Your task to perform on an android device: Find coffee shops on Maps Image 0: 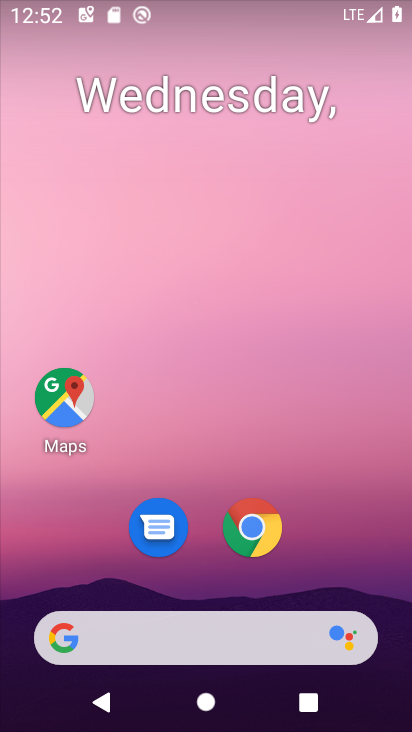
Step 0: drag from (302, 614) to (345, 0)
Your task to perform on an android device: Find coffee shops on Maps Image 1: 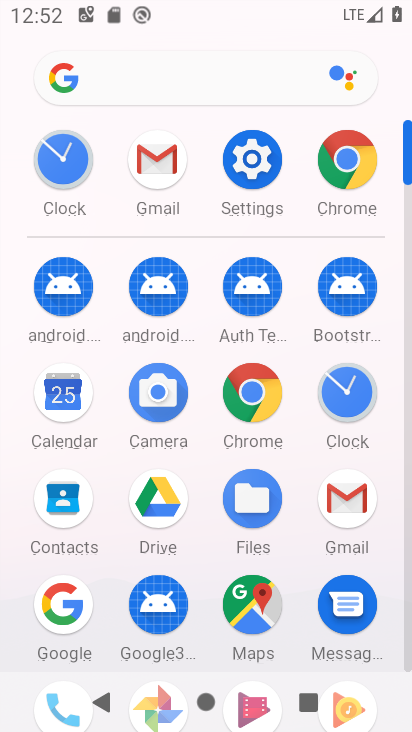
Step 1: click (250, 598)
Your task to perform on an android device: Find coffee shops on Maps Image 2: 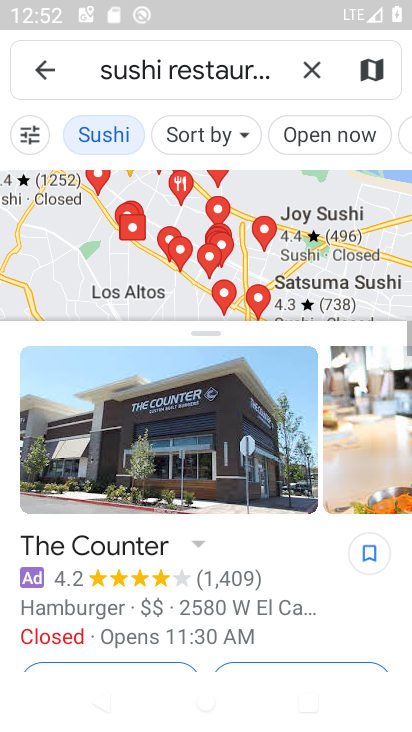
Step 2: click (313, 61)
Your task to perform on an android device: Find coffee shops on Maps Image 3: 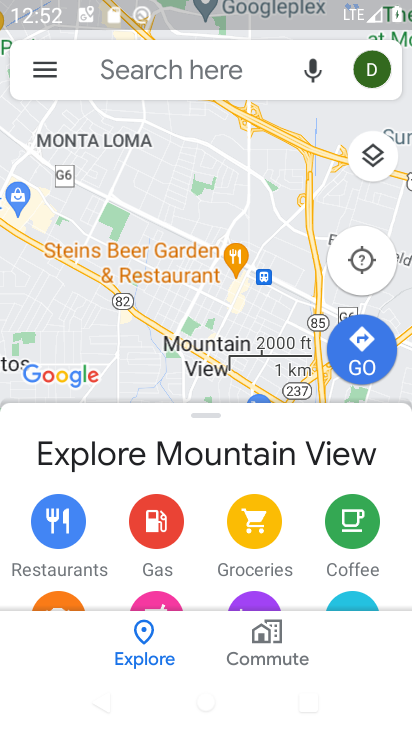
Step 3: click (186, 75)
Your task to perform on an android device: Find coffee shops on Maps Image 4: 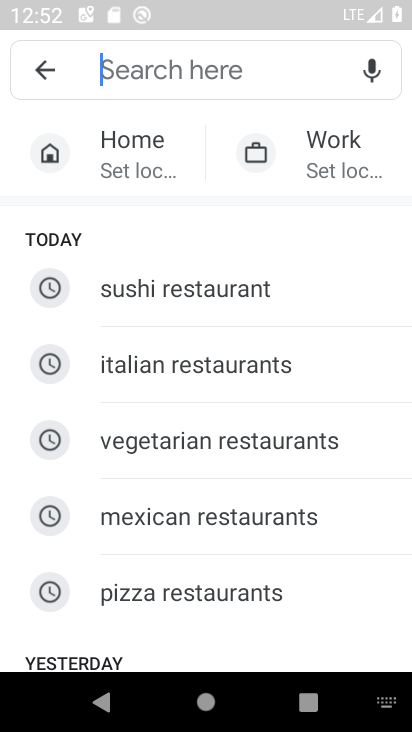
Step 4: type "coffee shops"
Your task to perform on an android device: Find coffee shops on Maps Image 5: 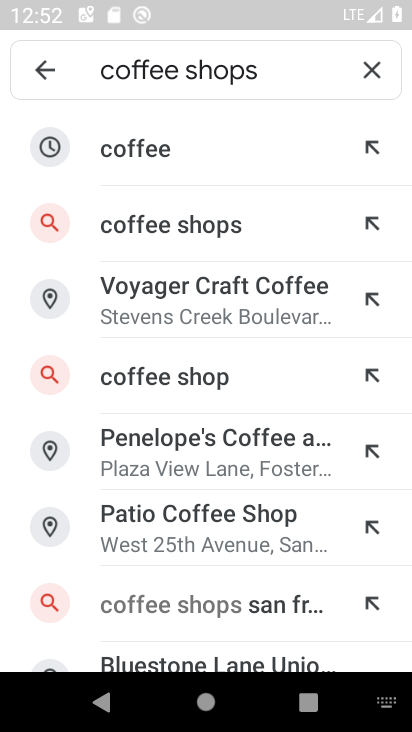
Step 5: click (222, 222)
Your task to perform on an android device: Find coffee shops on Maps Image 6: 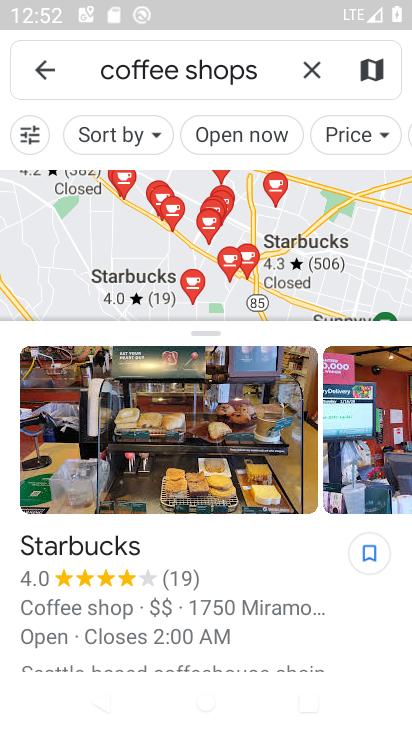
Step 6: task complete